Your task to perform on an android device: change the clock display to analog Image 0: 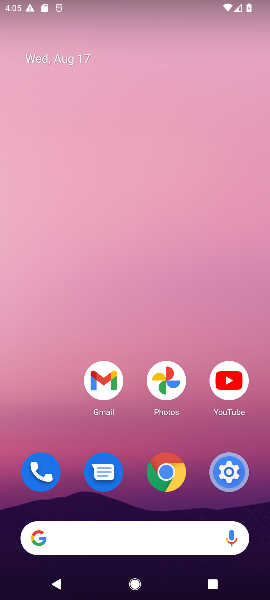
Step 0: drag from (128, 494) to (155, 140)
Your task to perform on an android device: change the clock display to analog Image 1: 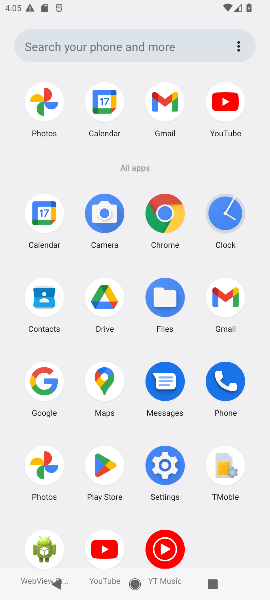
Step 1: click (235, 224)
Your task to perform on an android device: change the clock display to analog Image 2: 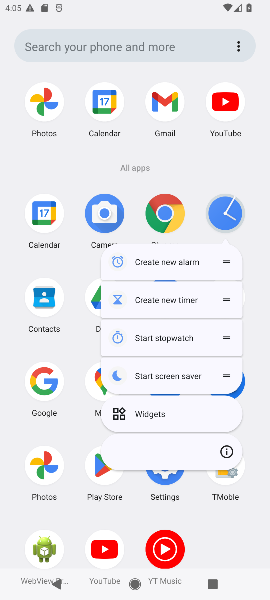
Step 2: click (226, 207)
Your task to perform on an android device: change the clock display to analog Image 3: 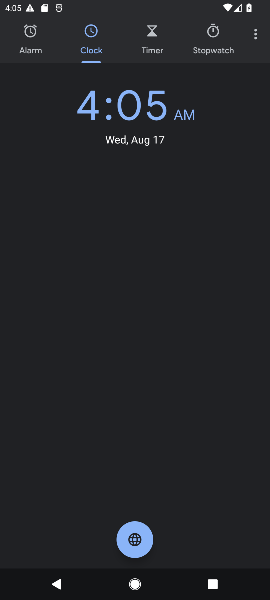
Step 3: click (250, 38)
Your task to perform on an android device: change the clock display to analog Image 4: 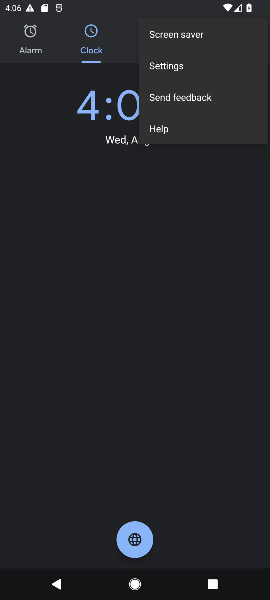
Step 4: click (185, 72)
Your task to perform on an android device: change the clock display to analog Image 5: 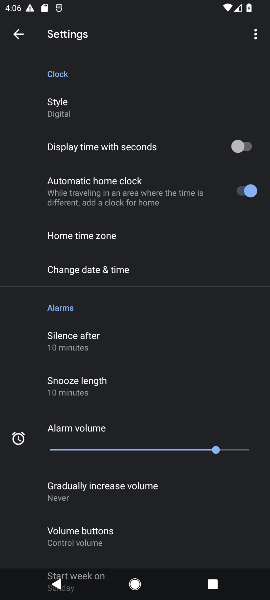
Step 5: click (61, 111)
Your task to perform on an android device: change the clock display to analog Image 6: 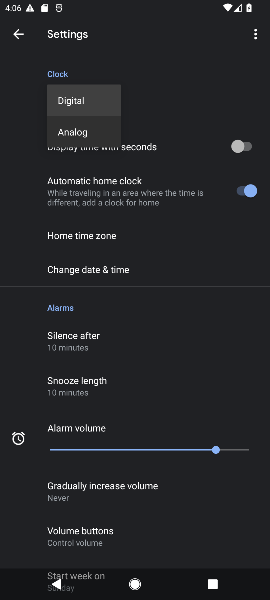
Step 6: click (72, 138)
Your task to perform on an android device: change the clock display to analog Image 7: 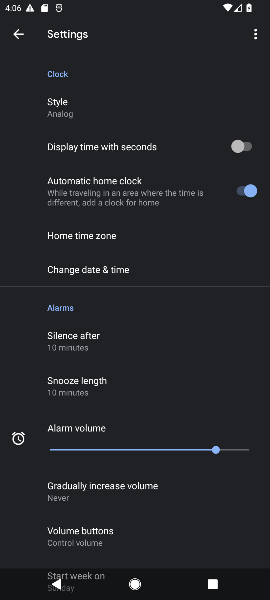
Step 7: task complete